Your task to perform on an android device: open a new tab in the chrome app Image 0: 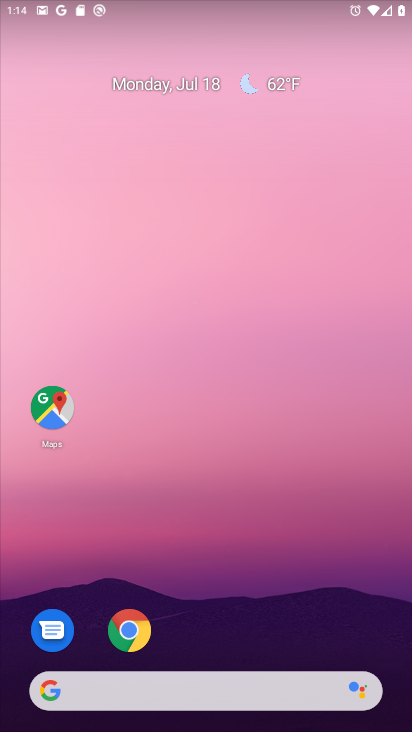
Step 0: click (118, 633)
Your task to perform on an android device: open a new tab in the chrome app Image 1: 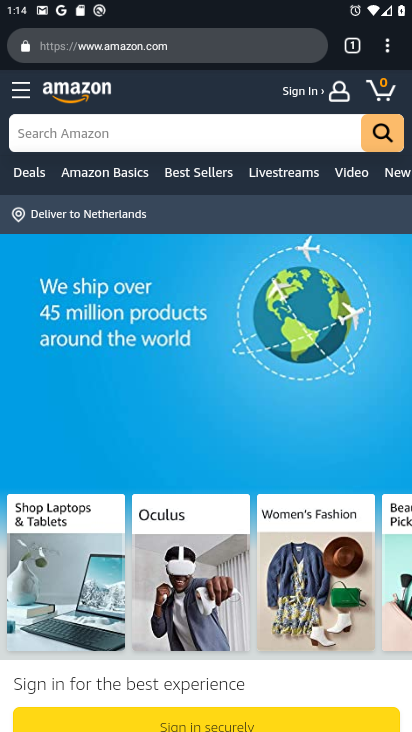
Step 1: click (385, 47)
Your task to perform on an android device: open a new tab in the chrome app Image 2: 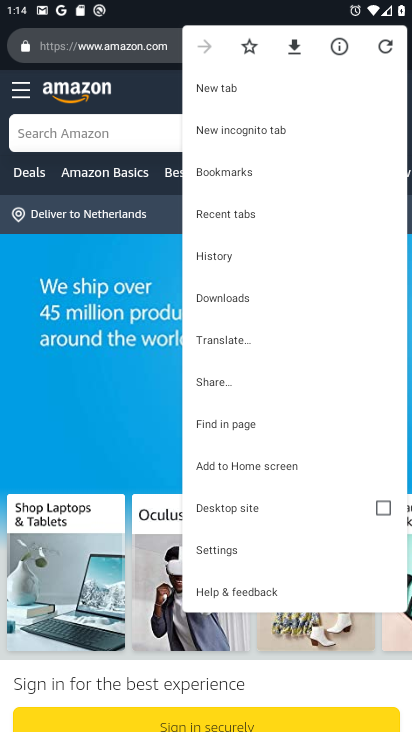
Step 2: click (250, 84)
Your task to perform on an android device: open a new tab in the chrome app Image 3: 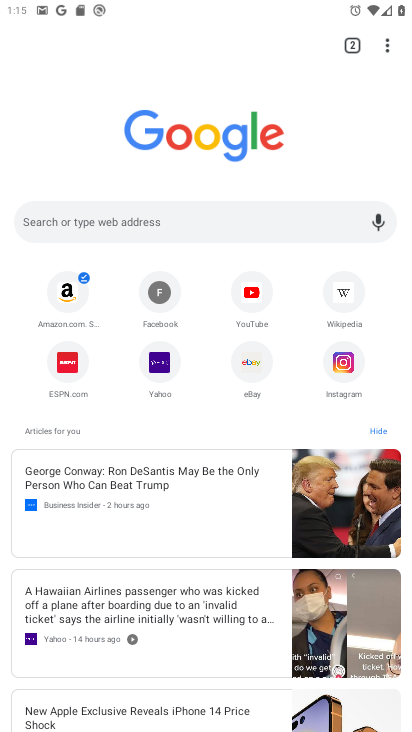
Step 3: task complete